Your task to perform on an android device: open app "Paramount+ | Peak Streaming" (install if not already installed) and go to login screen Image 0: 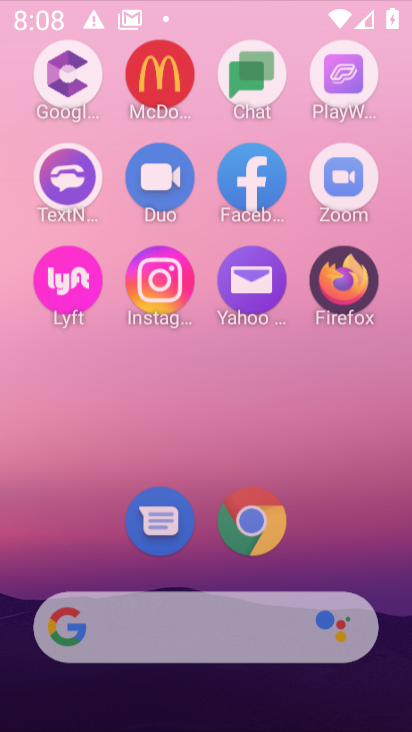
Step 0: press home button
Your task to perform on an android device: open app "Paramount+ | Peak Streaming" (install if not already installed) and go to login screen Image 1: 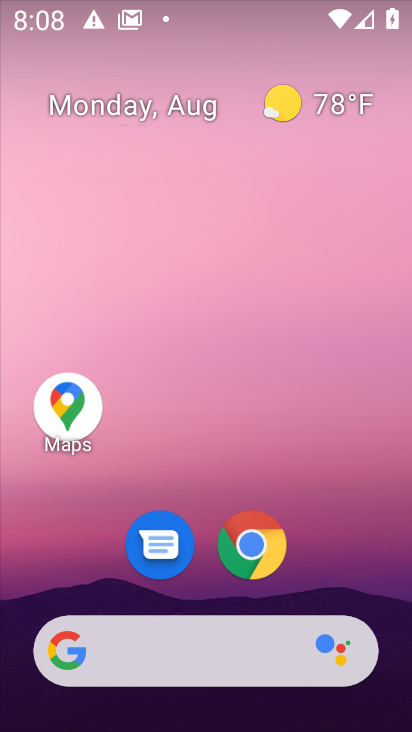
Step 1: drag from (355, 554) to (343, 104)
Your task to perform on an android device: open app "Paramount+ | Peak Streaming" (install if not already installed) and go to login screen Image 2: 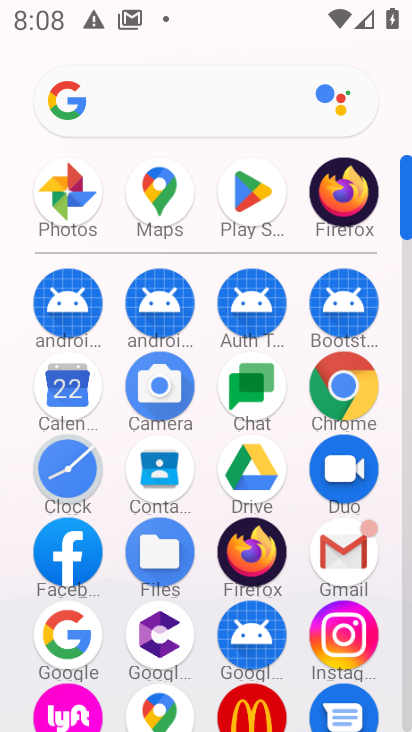
Step 2: click (248, 183)
Your task to perform on an android device: open app "Paramount+ | Peak Streaming" (install if not already installed) and go to login screen Image 3: 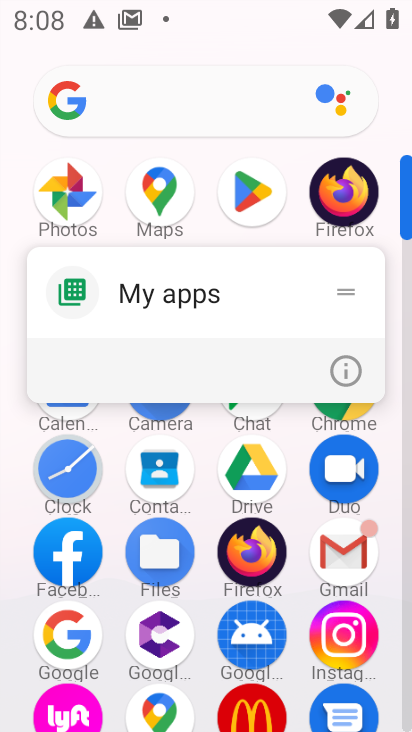
Step 3: click (262, 208)
Your task to perform on an android device: open app "Paramount+ | Peak Streaming" (install if not already installed) and go to login screen Image 4: 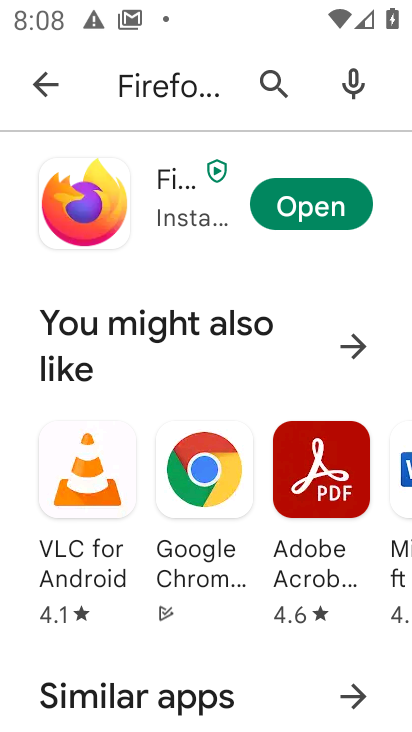
Step 4: press back button
Your task to perform on an android device: open app "Paramount+ | Peak Streaming" (install if not already installed) and go to login screen Image 5: 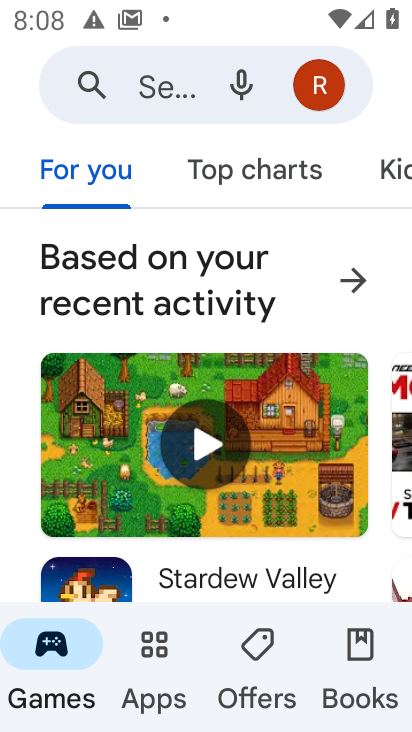
Step 5: click (175, 89)
Your task to perform on an android device: open app "Paramount+ | Peak Streaming" (install if not already installed) and go to login screen Image 6: 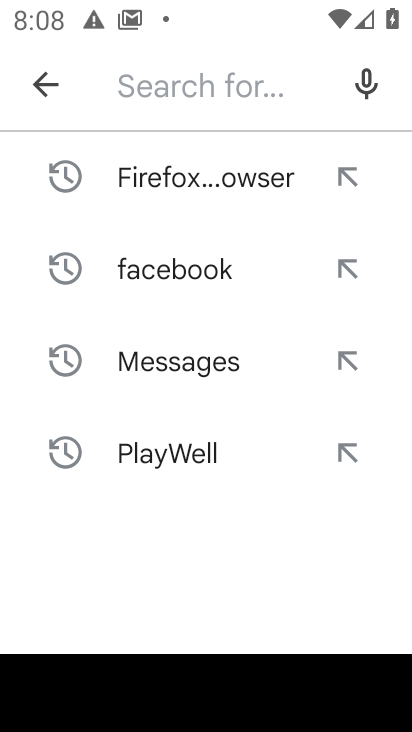
Step 6: type "Paramount+ | Peak Streaming"
Your task to perform on an android device: open app "Paramount+ | Peak Streaming" (install if not already installed) and go to login screen Image 7: 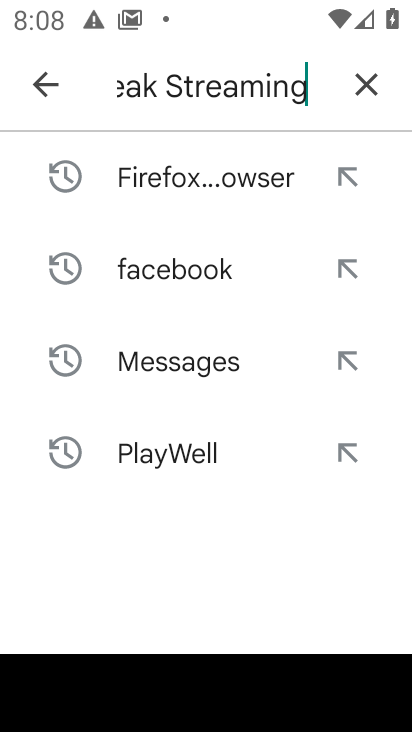
Step 7: press enter
Your task to perform on an android device: open app "Paramount+ | Peak Streaming" (install if not already installed) and go to login screen Image 8: 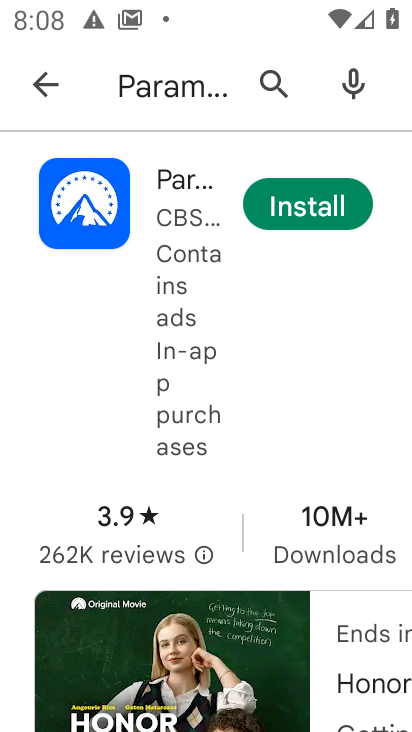
Step 8: click (308, 205)
Your task to perform on an android device: open app "Paramount+ | Peak Streaming" (install if not already installed) and go to login screen Image 9: 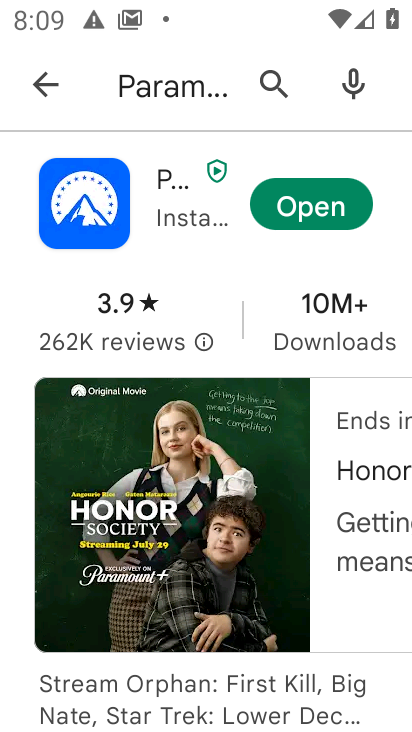
Step 9: click (335, 211)
Your task to perform on an android device: open app "Paramount+ | Peak Streaming" (install if not already installed) and go to login screen Image 10: 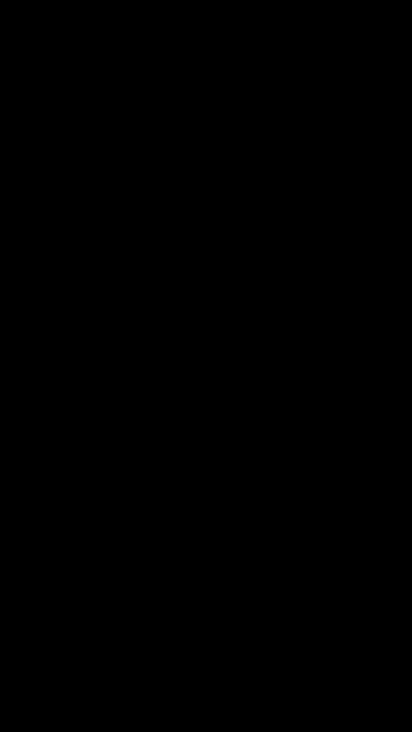
Step 10: task complete